Your task to perform on an android device: Go to settings Image 0: 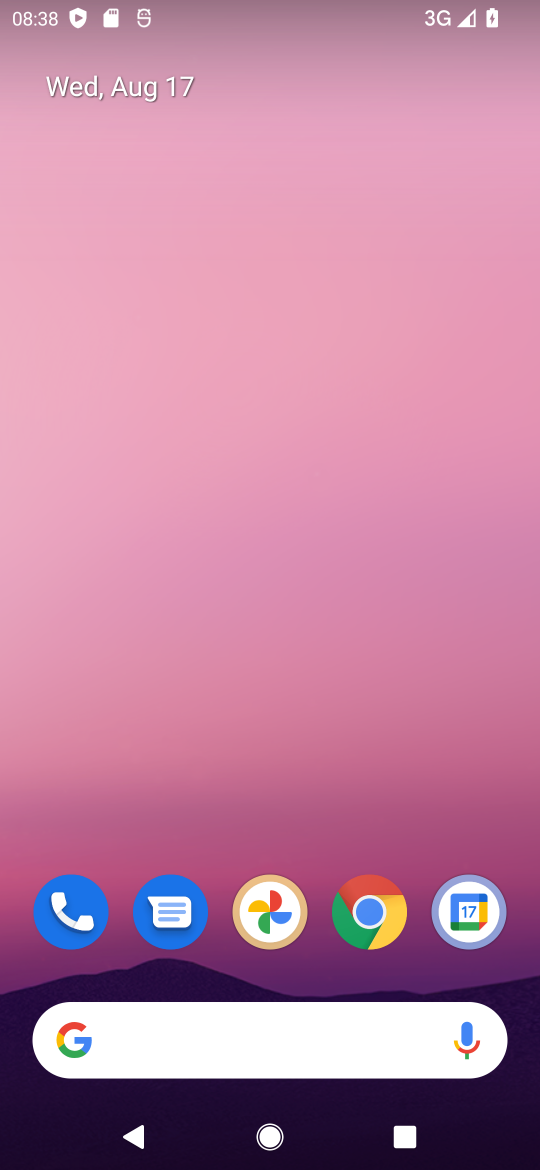
Step 0: drag from (335, 353) to (335, 4)
Your task to perform on an android device: Go to settings Image 1: 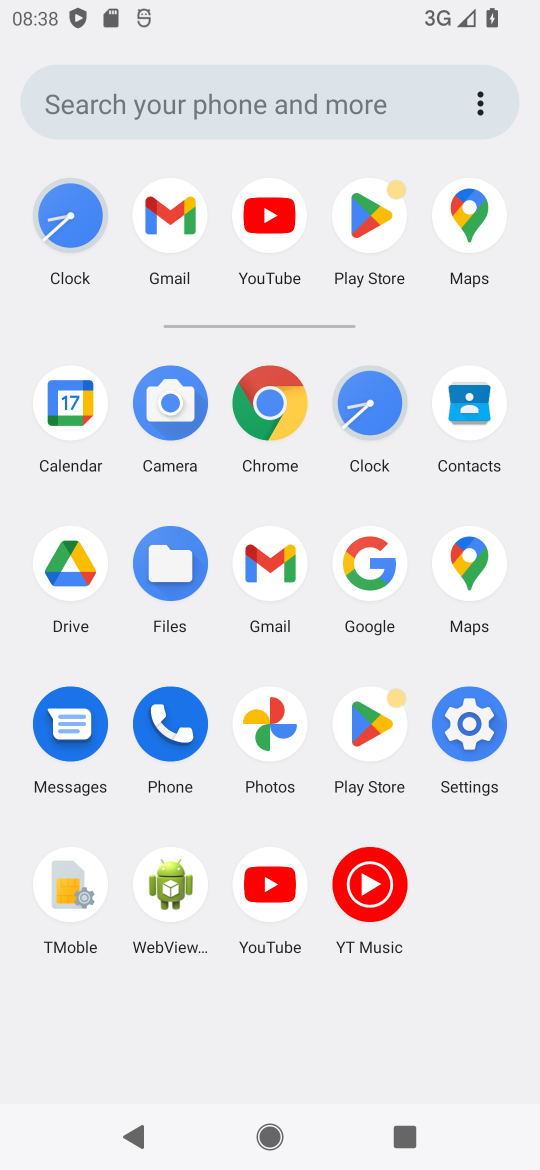
Step 1: click (465, 720)
Your task to perform on an android device: Go to settings Image 2: 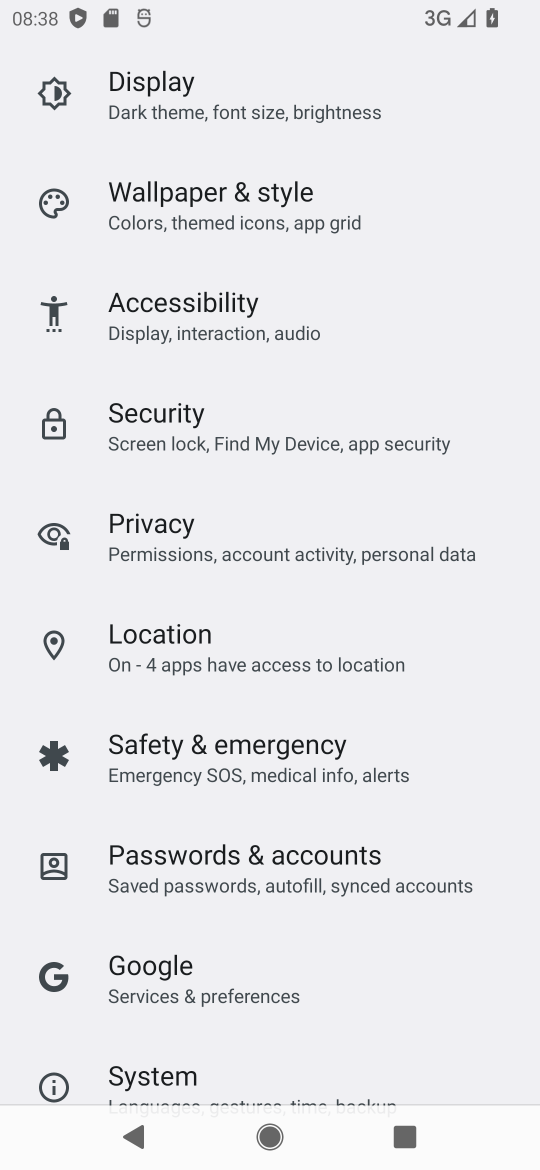
Step 2: task complete